Your task to perform on an android device: Open the phone app and click the voicemail tab. Image 0: 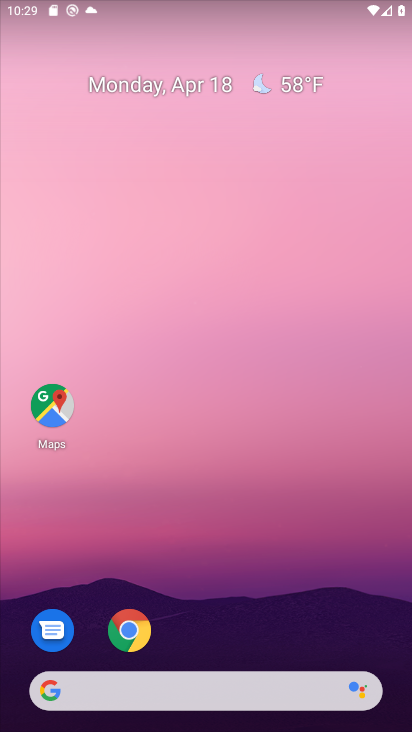
Step 0: drag from (229, 7) to (287, 11)
Your task to perform on an android device: Open the phone app and click the voicemail tab. Image 1: 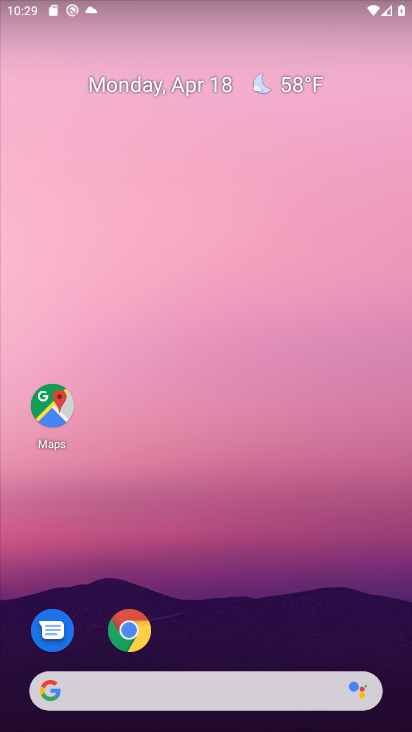
Step 1: drag from (214, 665) to (318, 16)
Your task to perform on an android device: Open the phone app and click the voicemail tab. Image 2: 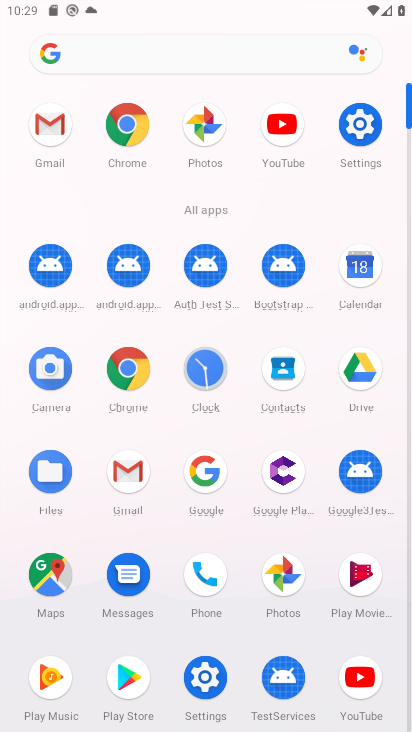
Step 2: click (198, 587)
Your task to perform on an android device: Open the phone app and click the voicemail tab. Image 3: 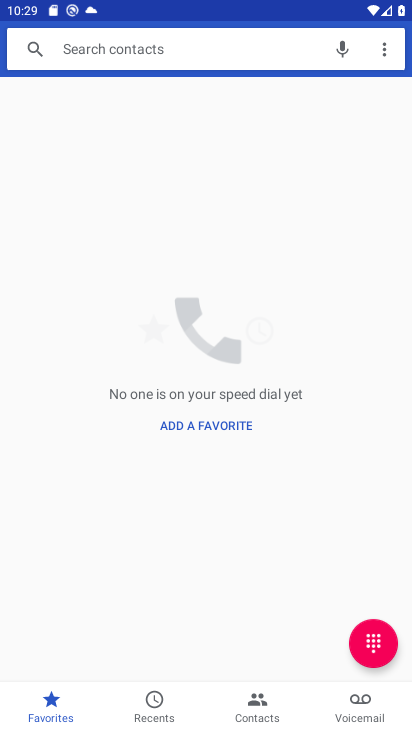
Step 3: click (344, 705)
Your task to perform on an android device: Open the phone app and click the voicemail tab. Image 4: 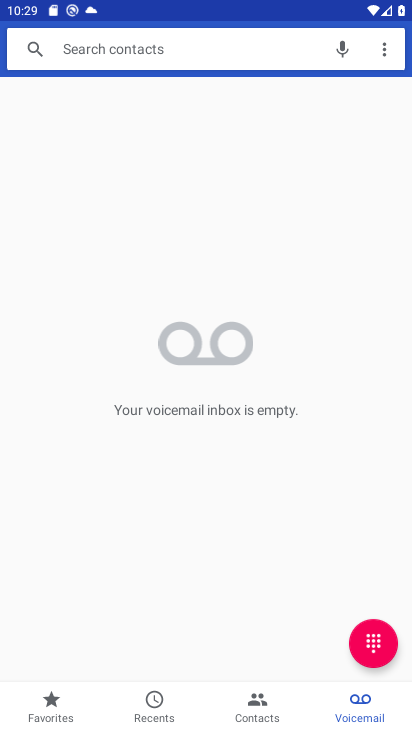
Step 4: task complete